Your task to perform on an android device: When is my next appointment? Image 0: 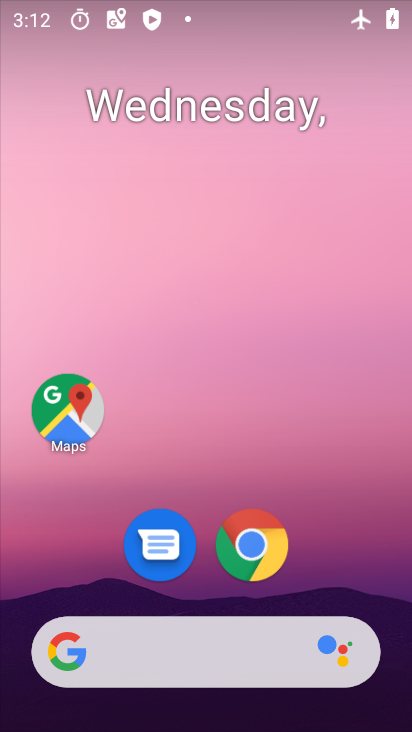
Step 0: press home button
Your task to perform on an android device: When is my next appointment? Image 1: 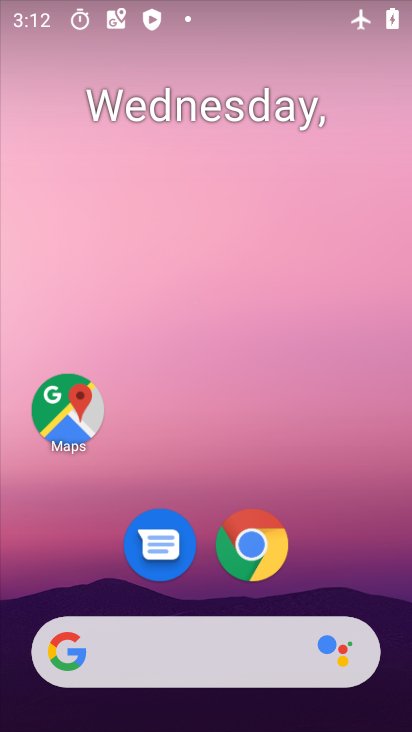
Step 1: drag from (401, 586) to (336, 151)
Your task to perform on an android device: When is my next appointment? Image 2: 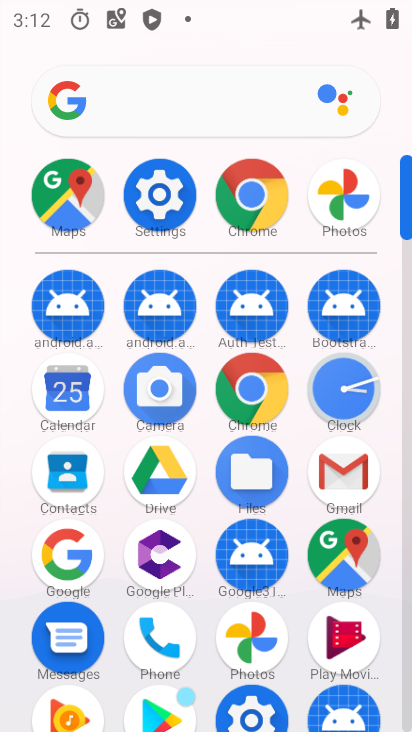
Step 2: click (72, 412)
Your task to perform on an android device: When is my next appointment? Image 3: 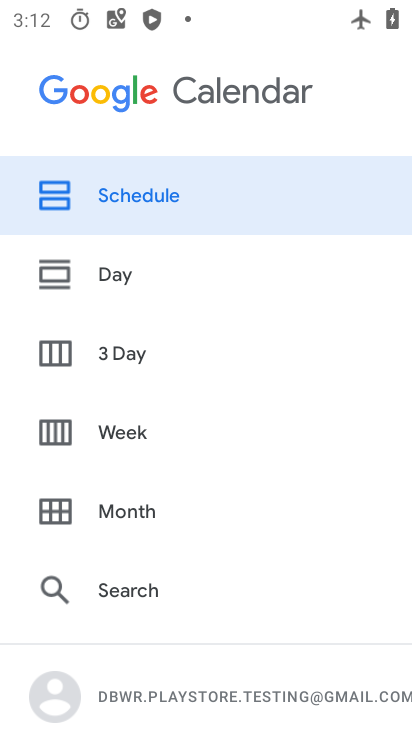
Step 3: task complete